Your task to perform on an android device: turn on wifi Image 0: 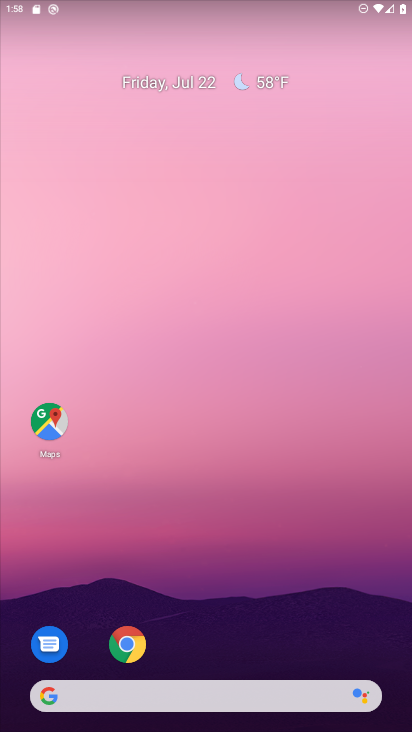
Step 0: drag from (259, 627) to (255, 176)
Your task to perform on an android device: turn on wifi Image 1: 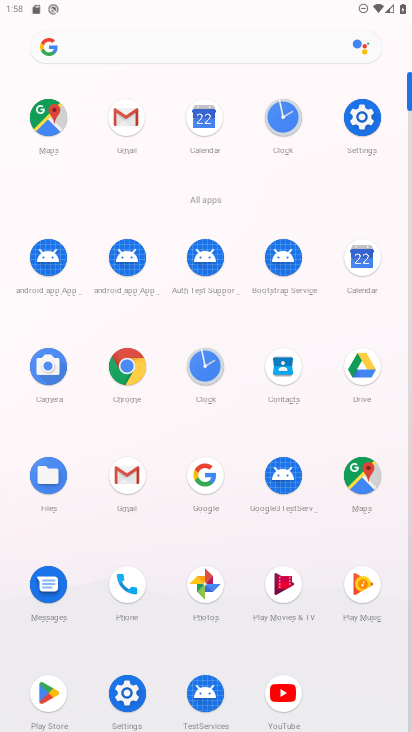
Step 1: click (345, 134)
Your task to perform on an android device: turn on wifi Image 2: 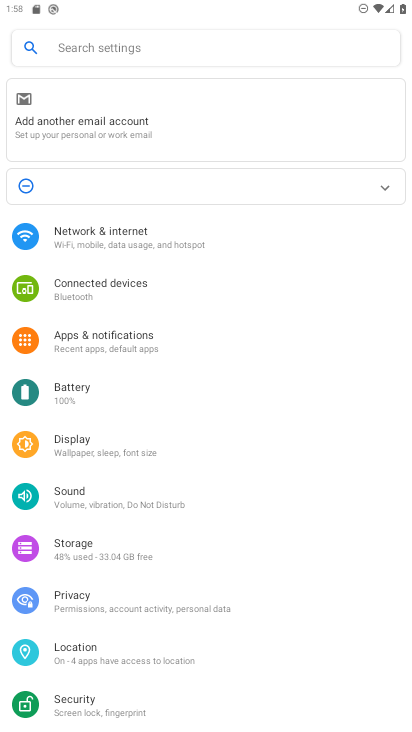
Step 2: click (155, 236)
Your task to perform on an android device: turn on wifi Image 3: 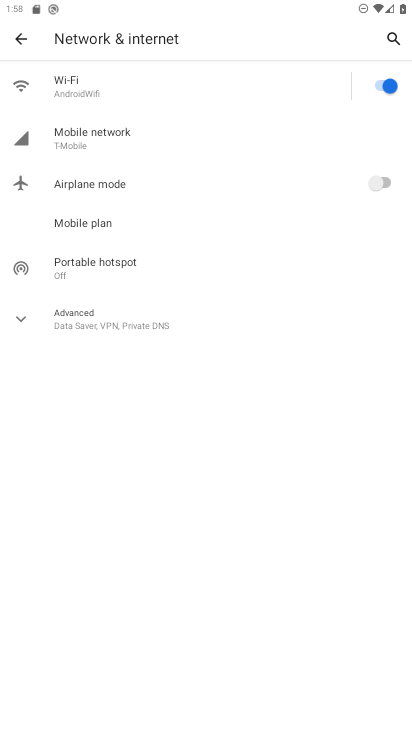
Step 3: task complete